Your task to perform on an android device: Find coffee shops on Maps Image 0: 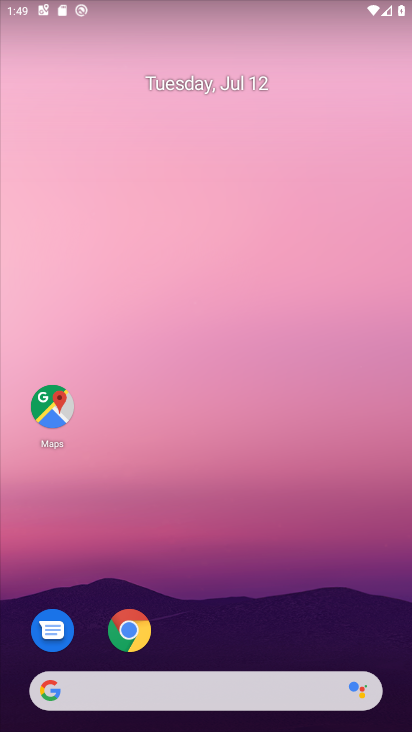
Step 0: drag from (271, 574) to (267, 318)
Your task to perform on an android device: Find coffee shops on Maps Image 1: 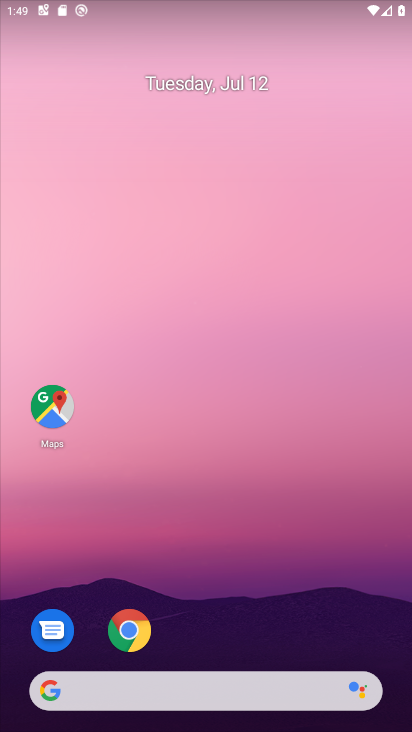
Step 1: drag from (265, 663) to (254, 216)
Your task to perform on an android device: Find coffee shops on Maps Image 2: 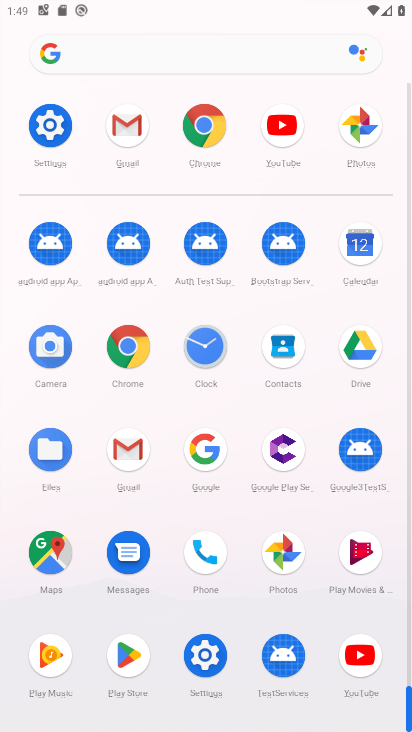
Step 2: click (53, 558)
Your task to perform on an android device: Find coffee shops on Maps Image 3: 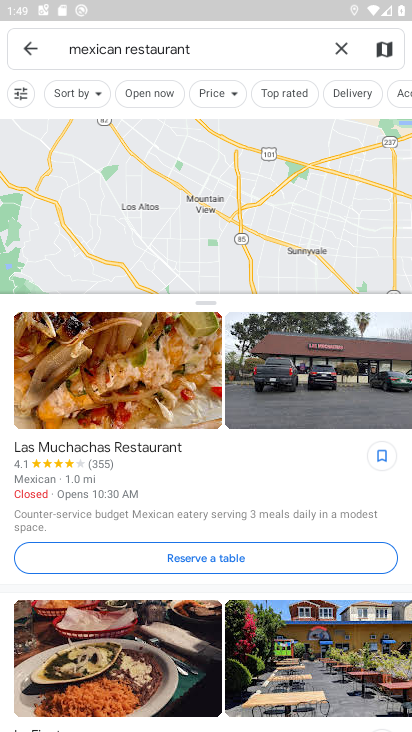
Step 3: click (27, 50)
Your task to perform on an android device: Find coffee shops on Maps Image 4: 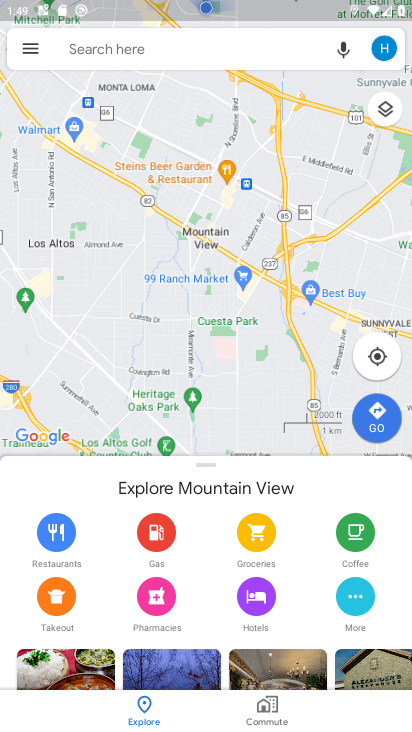
Step 4: click (252, 55)
Your task to perform on an android device: Find coffee shops on Maps Image 5: 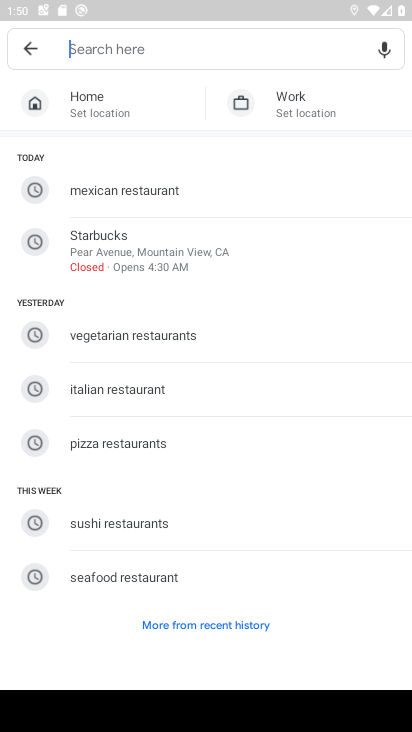
Step 5: type "coffee shop"
Your task to perform on an android device: Find coffee shops on Maps Image 6: 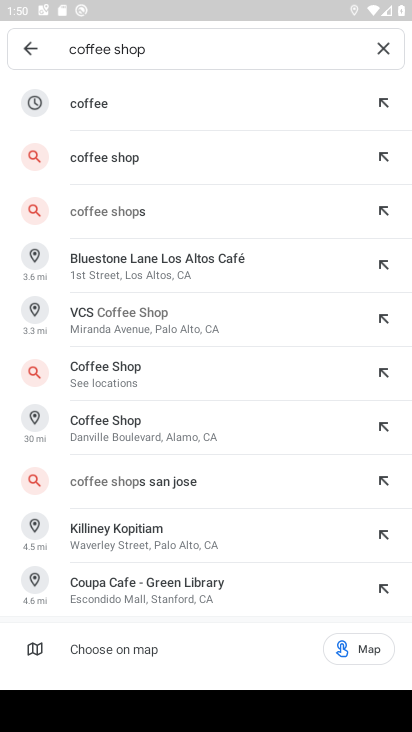
Step 6: click (193, 159)
Your task to perform on an android device: Find coffee shops on Maps Image 7: 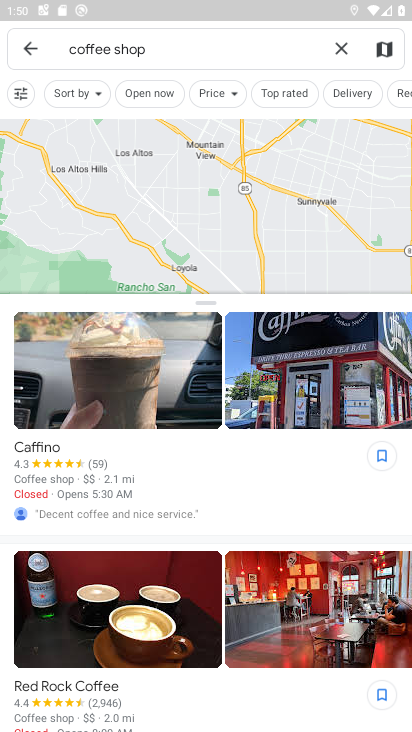
Step 7: task complete